Your task to perform on an android device: What's on my calendar today? Image 0: 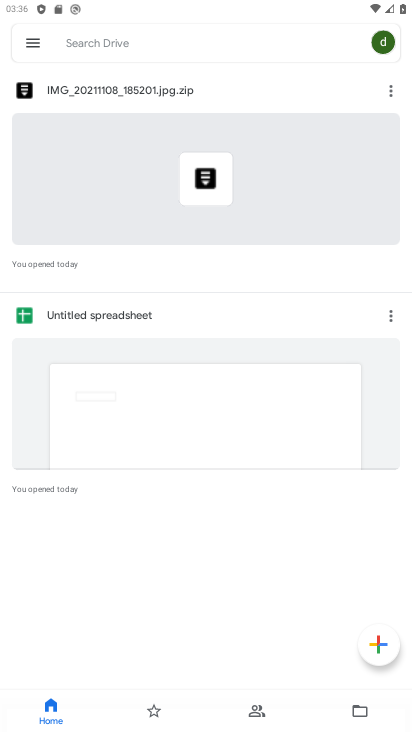
Step 0: press home button
Your task to perform on an android device: What's on my calendar today? Image 1: 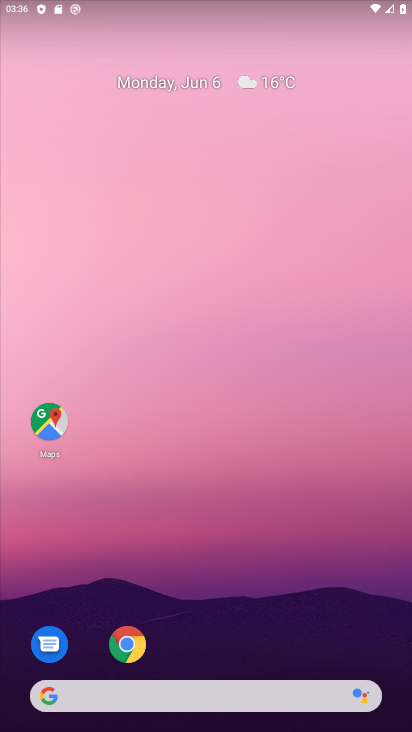
Step 1: drag from (396, 683) to (288, 99)
Your task to perform on an android device: What's on my calendar today? Image 2: 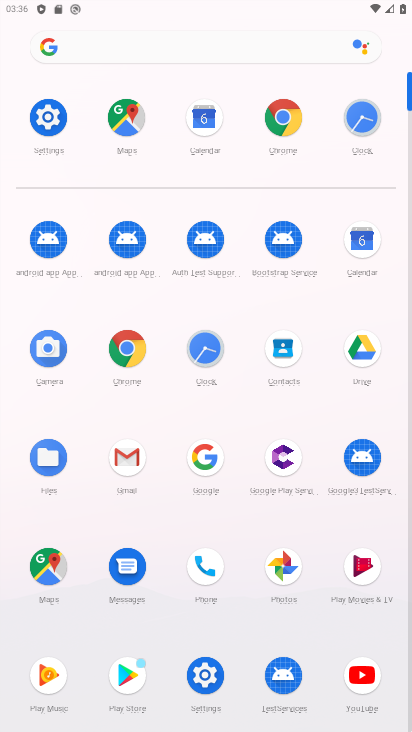
Step 2: click (370, 242)
Your task to perform on an android device: What's on my calendar today? Image 3: 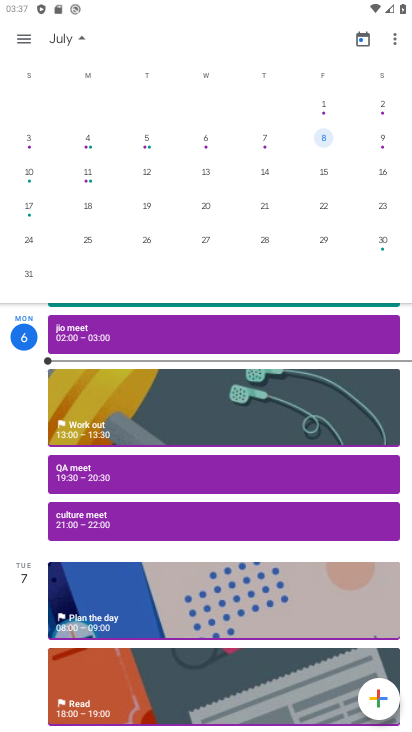
Step 3: drag from (46, 99) to (405, 144)
Your task to perform on an android device: What's on my calendar today? Image 4: 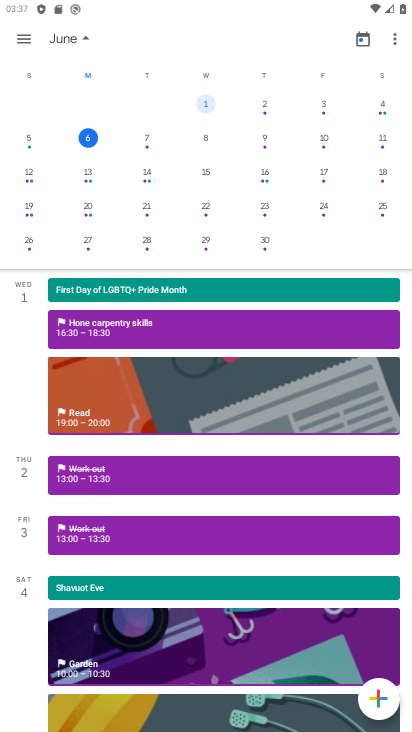
Step 4: click (148, 138)
Your task to perform on an android device: What's on my calendar today? Image 5: 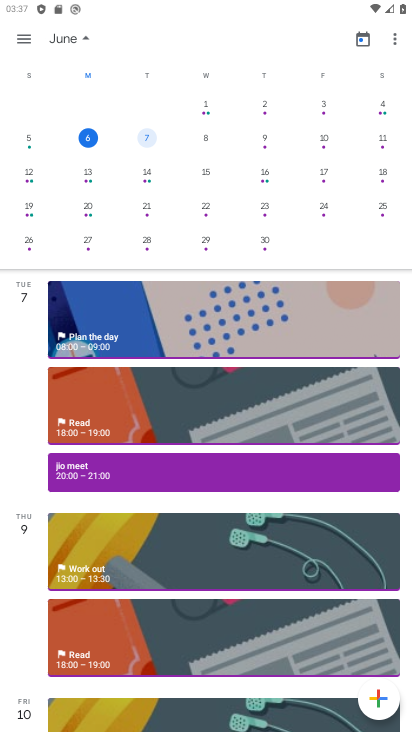
Step 5: task complete